Your task to perform on an android device: allow cookies in the chrome app Image 0: 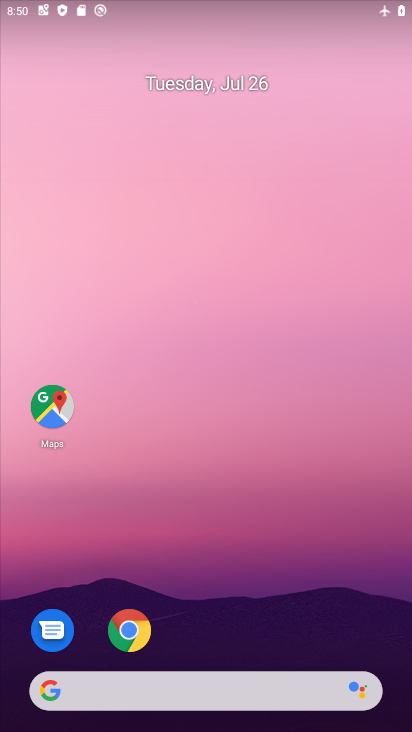
Step 0: click (144, 638)
Your task to perform on an android device: allow cookies in the chrome app Image 1: 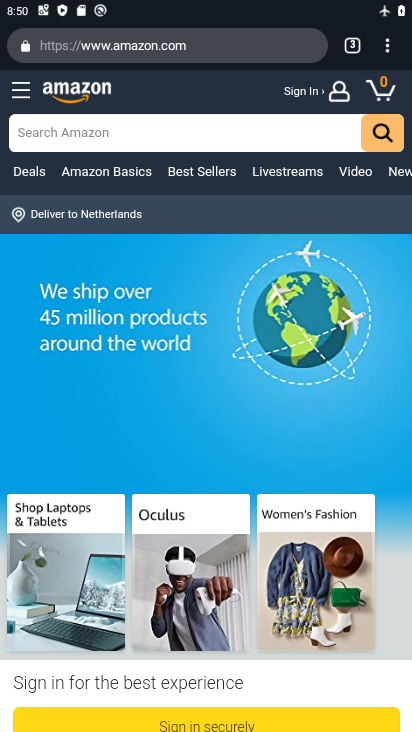
Step 1: click (385, 55)
Your task to perform on an android device: allow cookies in the chrome app Image 2: 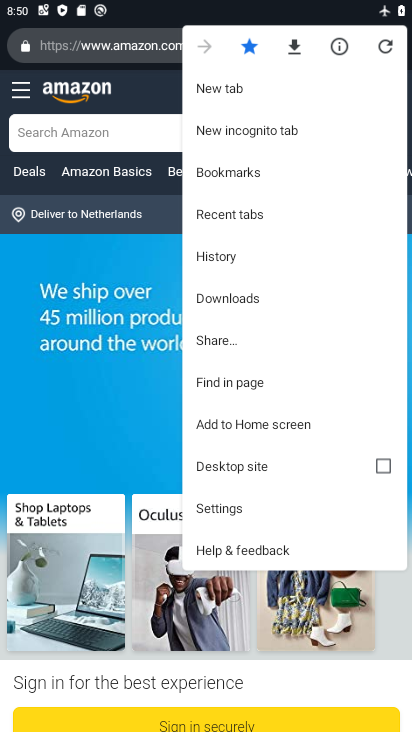
Step 2: click (250, 514)
Your task to perform on an android device: allow cookies in the chrome app Image 3: 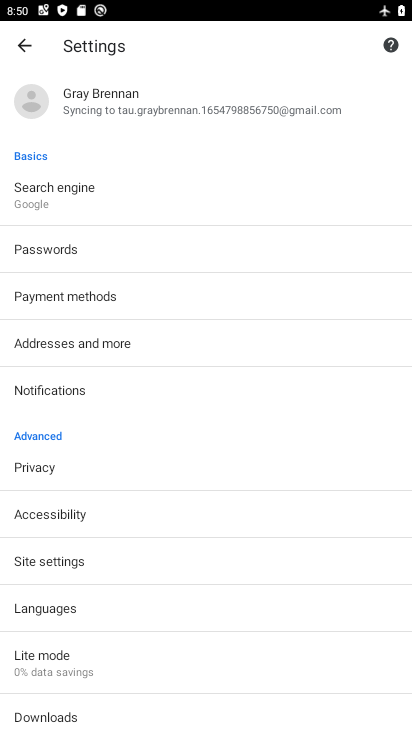
Step 3: task complete